Your task to perform on an android device: turn on bluetooth scan Image 0: 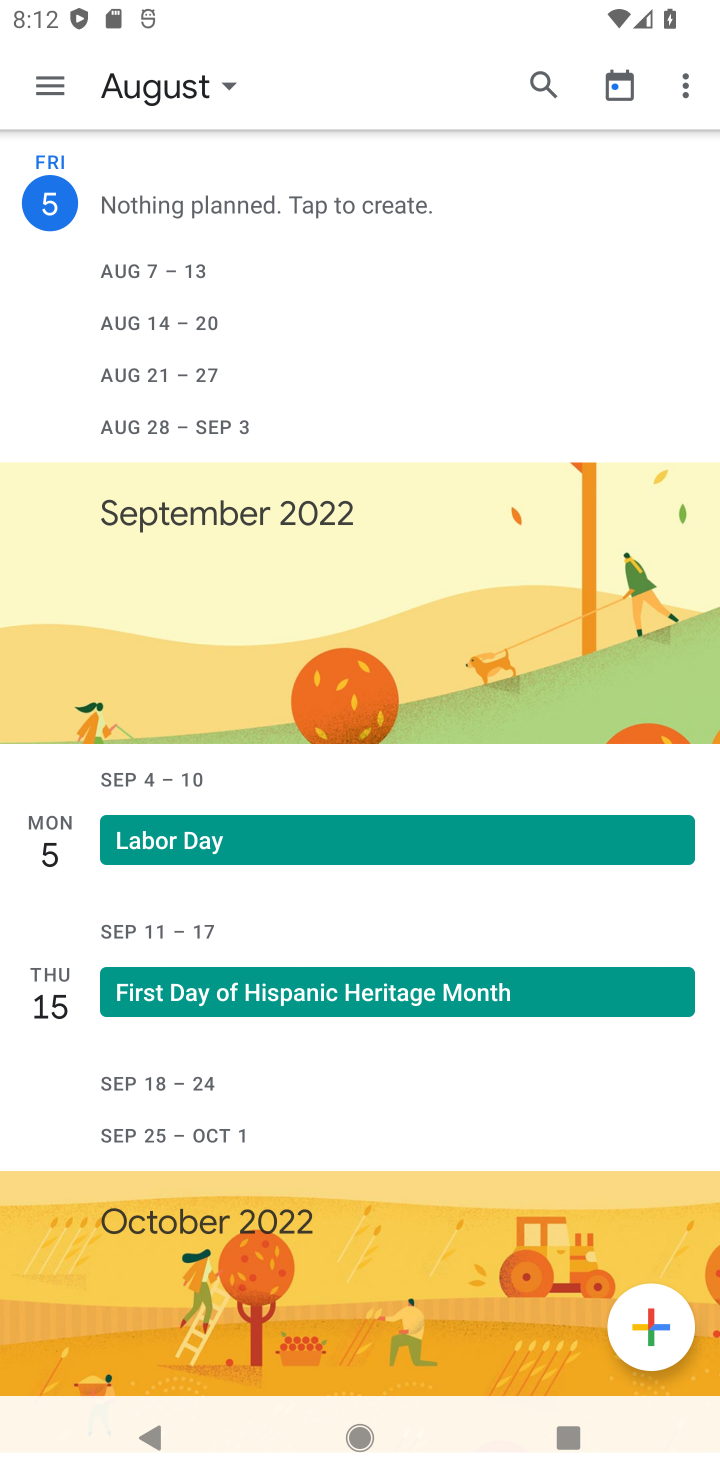
Step 0: task complete